Your task to perform on an android device: Open Wikipedia Image 0: 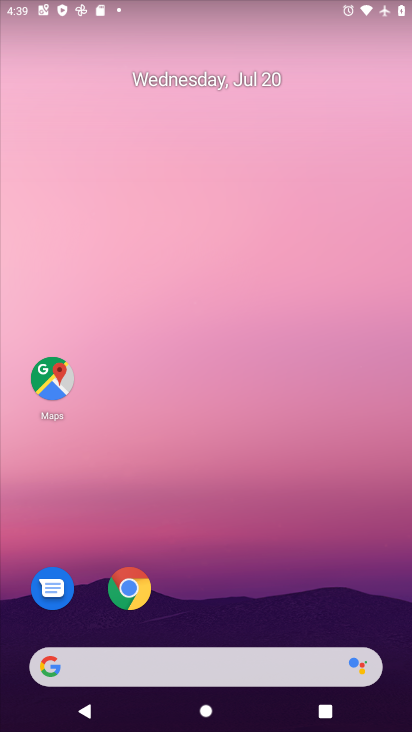
Step 0: drag from (276, 588) to (288, 74)
Your task to perform on an android device: Open Wikipedia Image 1: 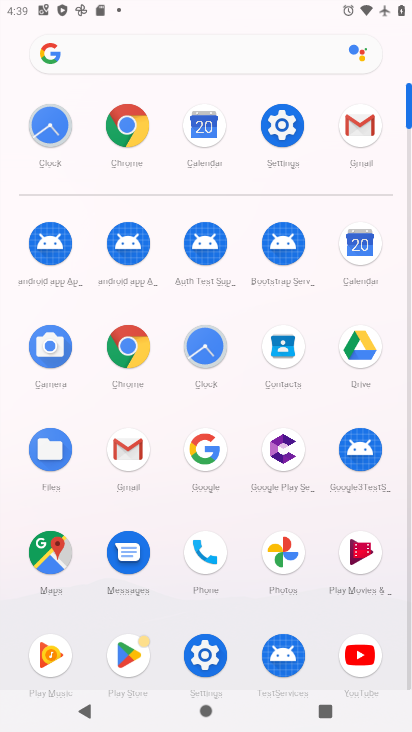
Step 1: click (129, 124)
Your task to perform on an android device: Open Wikipedia Image 2: 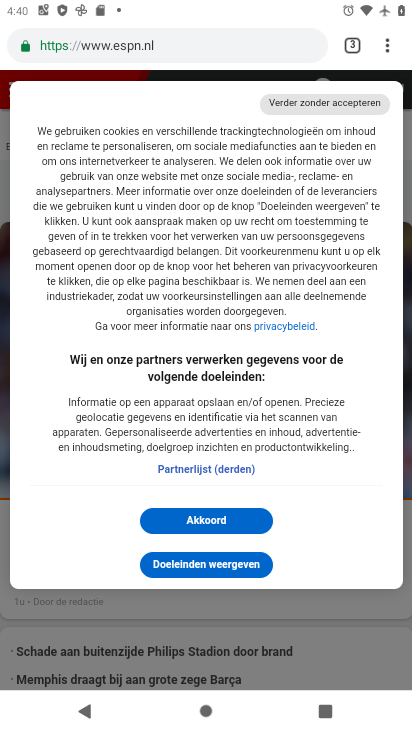
Step 2: click (200, 34)
Your task to perform on an android device: Open Wikipedia Image 3: 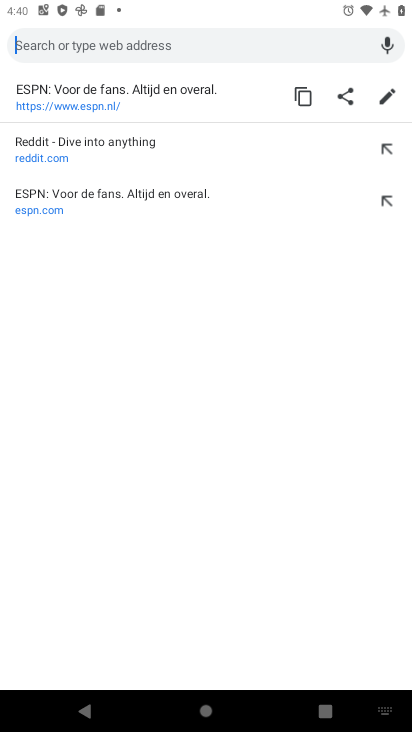
Step 3: type "wikipedia"
Your task to perform on an android device: Open Wikipedia Image 4: 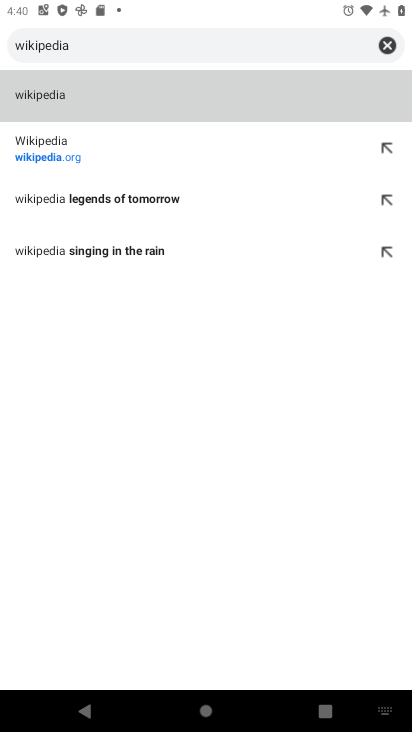
Step 4: click (45, 157)
Your task to perform on an android device: Open Wikipedia Image 5: 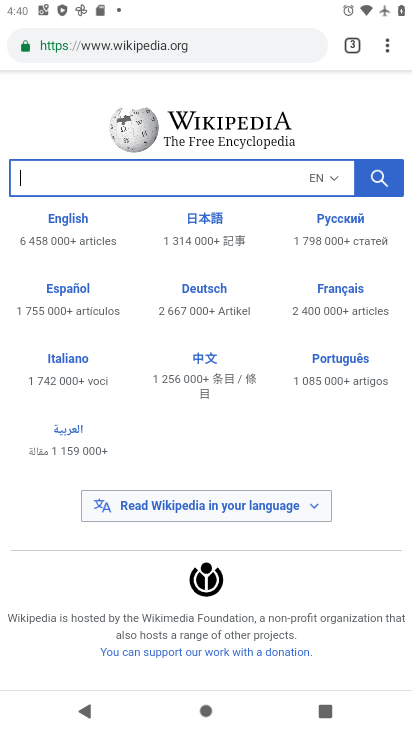
Step 5: task complete